Your task to perform on an android device: Go to network settings Image 0: 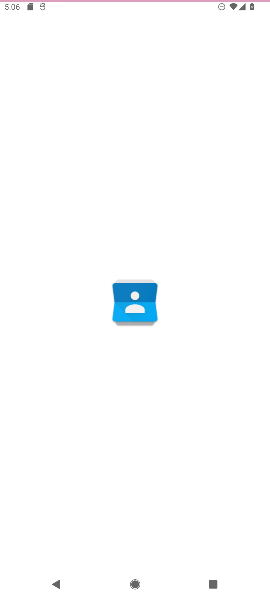
Step 0: press home button
Your task to perform on an android device: Go to network settings Image 1: 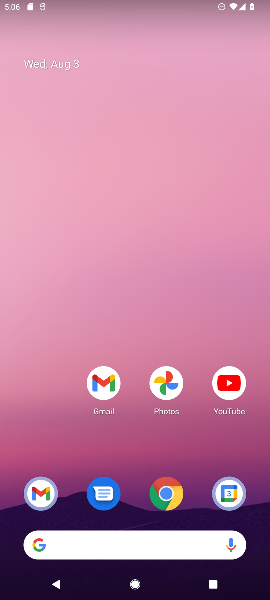
Step 1: drag from (44, 444) to (69, 143)
Your task to perform on an android device: Go to network settings Image 2: 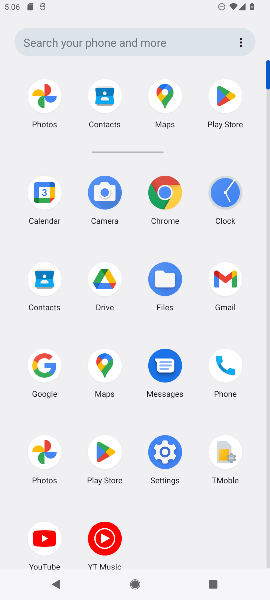
Step 2: click (169, 457)
Your task to perform on an android device: Go to network settings Image 3: 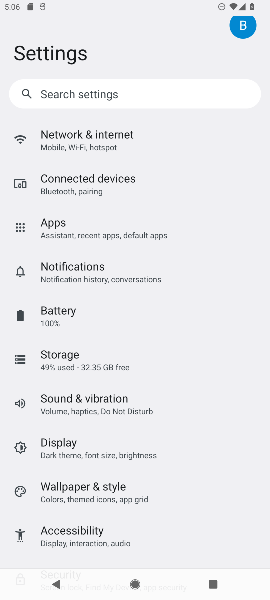
Step 3: drag from (211, 498) to (210, 374)
Your task to perform on an android device: Go to network settings Image 4: 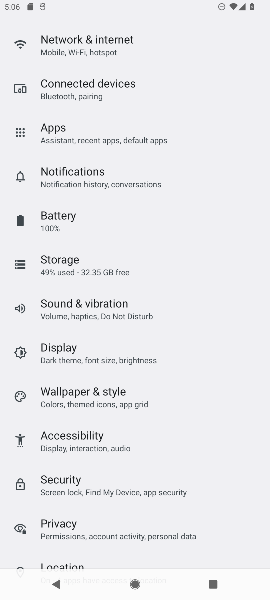
Step 4: drag from (219, 523) to (224, 402)
Your task to perform on an android device: Go to network settings Image 5: 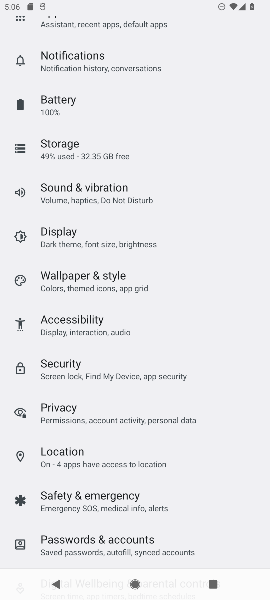
Step 5: drag from (213, 515) to (220, 396)
Your task to perform on an android device: Go to network settings Image 6: 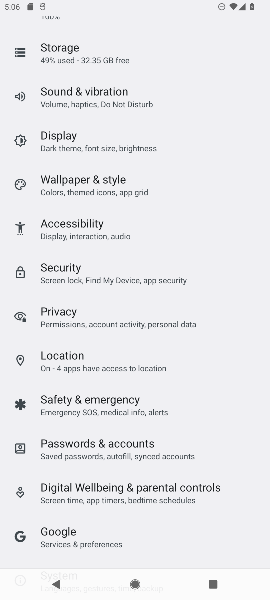
Step 6: drag from (223, 538) to (231, 395)
Your task to perform on an android device: Go to network settings Image 7: 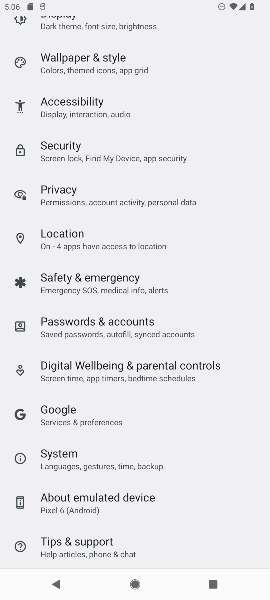
Step 7: drag from (226, 530) to (228, 397)
Your task to perform on an android device: Go to network settings Image 8: 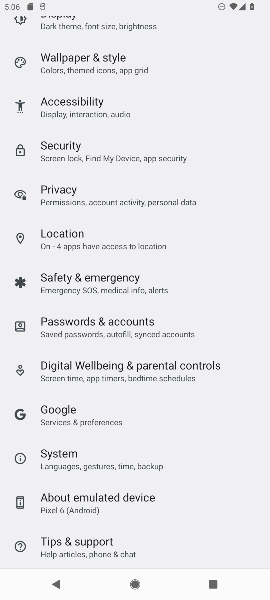
Step 8: drag from (215, 253) to (215, 364)
Your task to perform on an android device: Go to network settings Image 9: 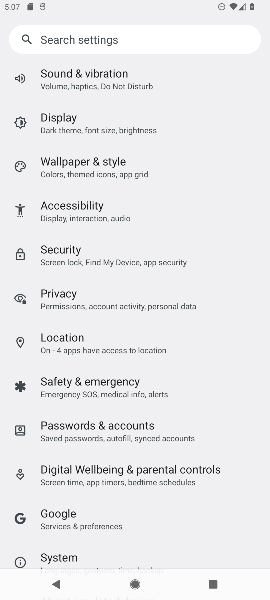
Step 9: drag from (220, 203) to (227, 327)
Your task to perform on an android device: Go to network settings Image 10: 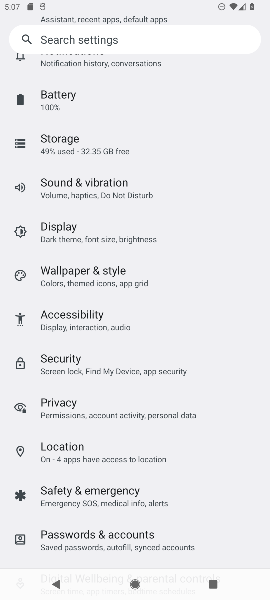
Step 10: drag from (222, 162) to (216, 316)
Your task to perform on an android device: Go to network settings Image 11: 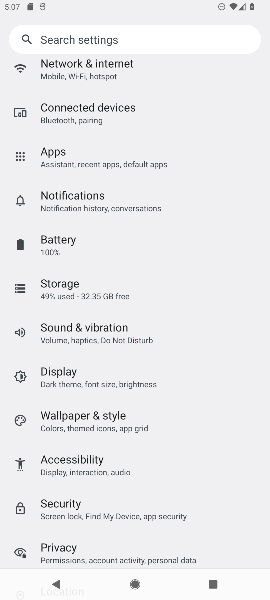
Step 11: drag from (218, 173) to (216, 360)
Your task to perform on an android device: Go to network settings Image 12: 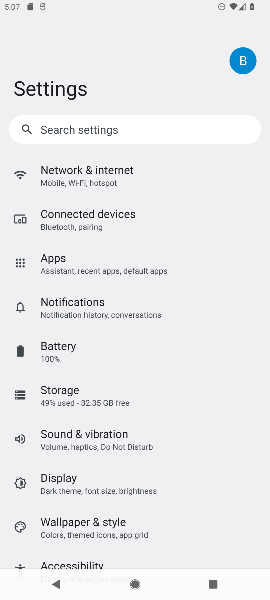
Step 12: click (155, 180)
Your task to perform on an android device: Go to network settings Image 13: 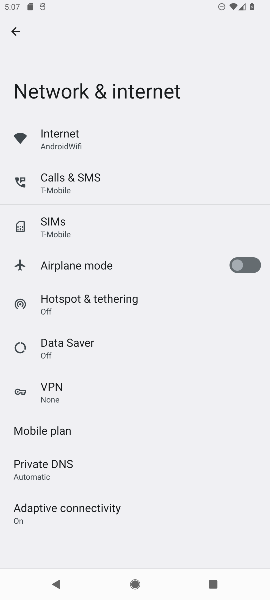
Step 13: task complete